Your task to perform on an android device: turn off data saver in the chrome app Image 0: 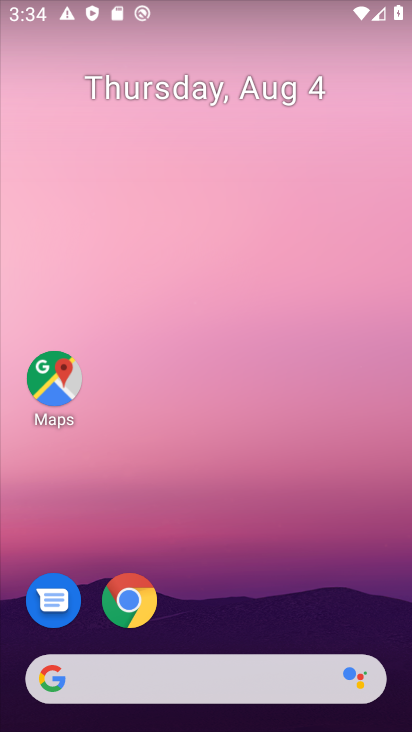
Step 0: drag from (305, 617) to (166, 67)
Your task to perform on an android device: turn off data saver in the chrome app Image 1: 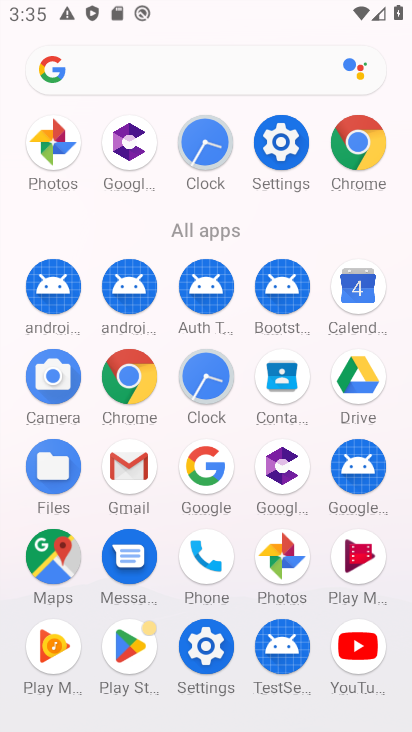
Step 1: click (124, 377)
Your task to perform on an android device: turn off data saver in the chrome app Image 2: 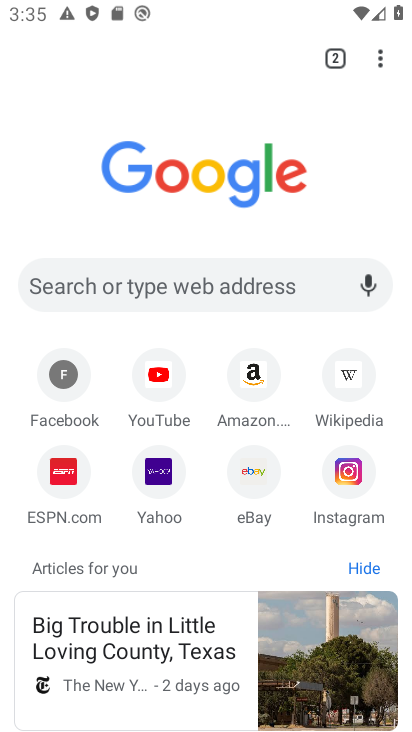
Step 2: drag from (386, 63) to (204, 506)
Your task to perform on an android device: turn off data saver in the chrome app Image 3: 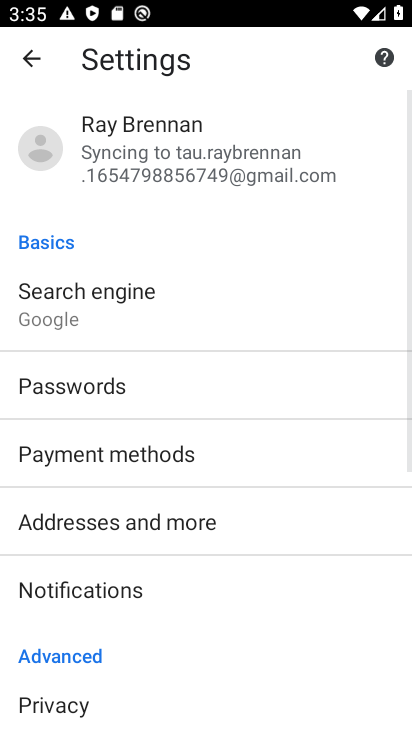
Step 3: drag from (231, 571) to (248, 100)
Your task to perform on an android device: turn off data saver in the chrome app Image 4: 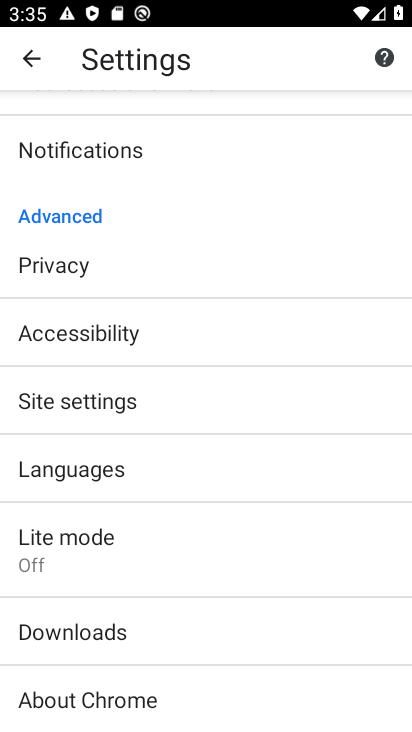
Step 4: drag from (205, 446) to (219, 121)
Your task to perform on an android device: turn off data saver in the chrome app Image 5: 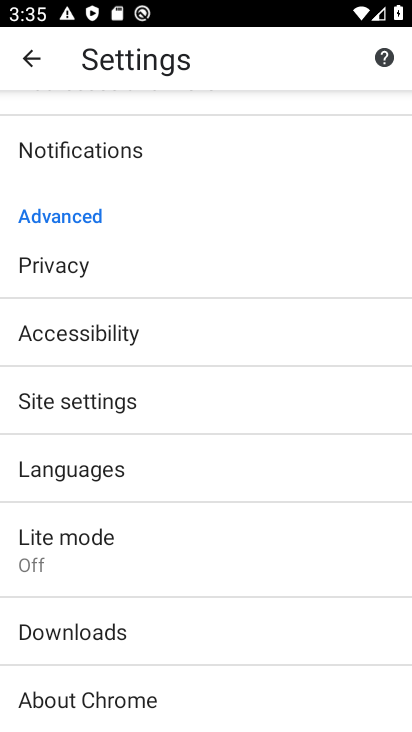
Step 5: click (147, 570)
Your task to perform on an android device: turn off data saver in the chrome app Image 6: 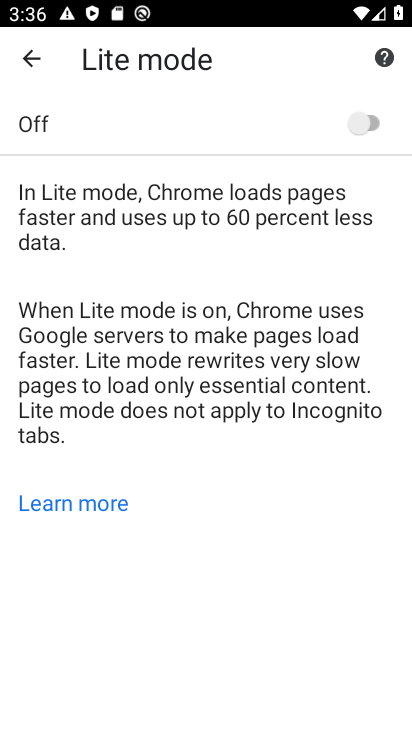
Step 6: task complete